Your task to perform on an android device: Is it going to rain tomorrow? Image 0: 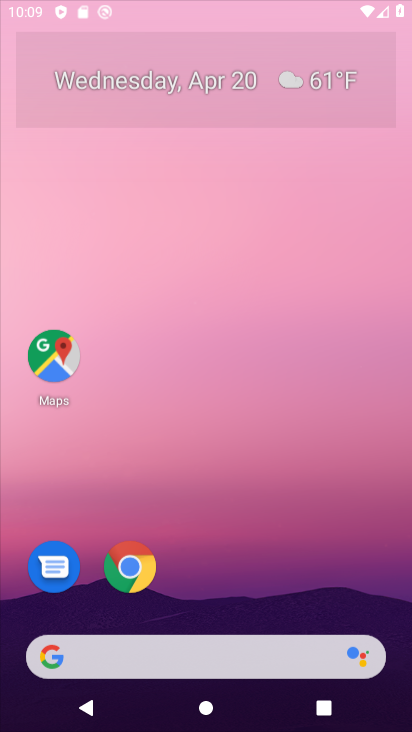
Step 0: click (341, 33)
Your task to perform on an android device: Is it going to rain tomorrow? Image 1: 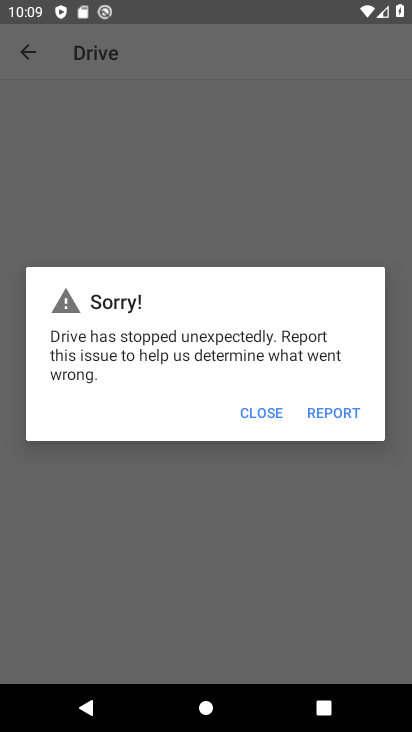
Step 1: click (245, 402)
Your task to perform on an android device: Is it going to rain tomorrow? Image 2: 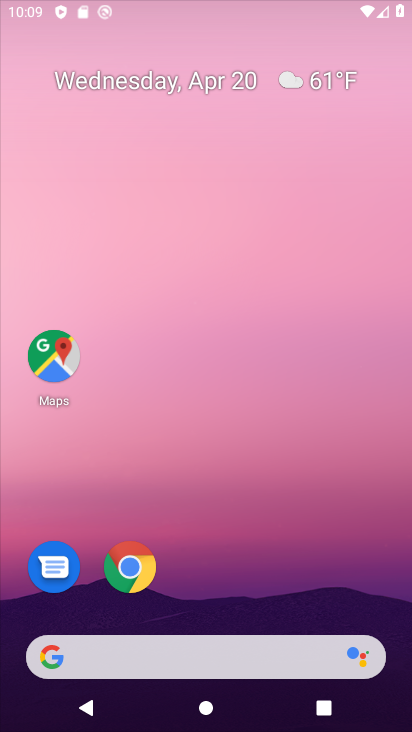
Step 2: press back button
Your task to perform on an android device: Is it going to rain tomorrow? Image 3: 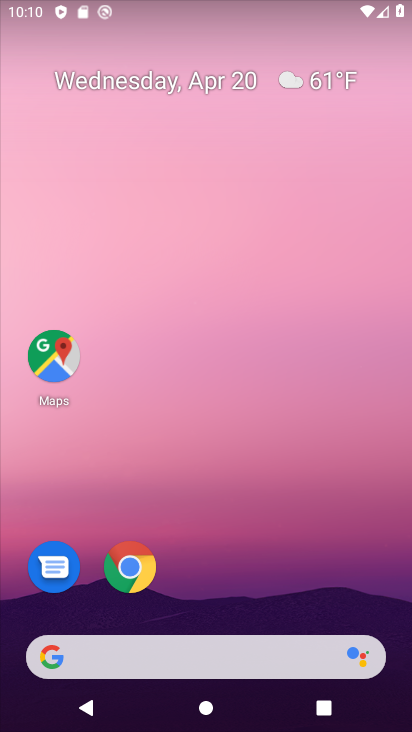
Step 3: click (194, 647)
Your task to perform on an android device: Is it going to rain tomorrow? Image 4: 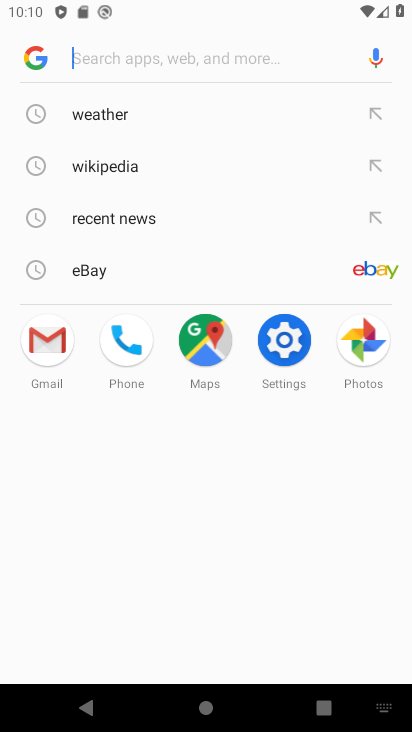
Step 4: press back button
Your task to perform on an android device: Is it going to rain tomorrow? Image 5: 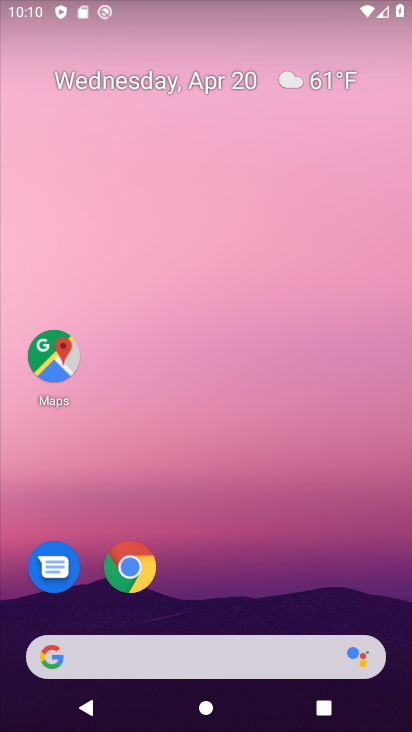
Step 5: click (317, 73)
Your task to perform on an android device: Is it going to rain tomorrow? Image 6: 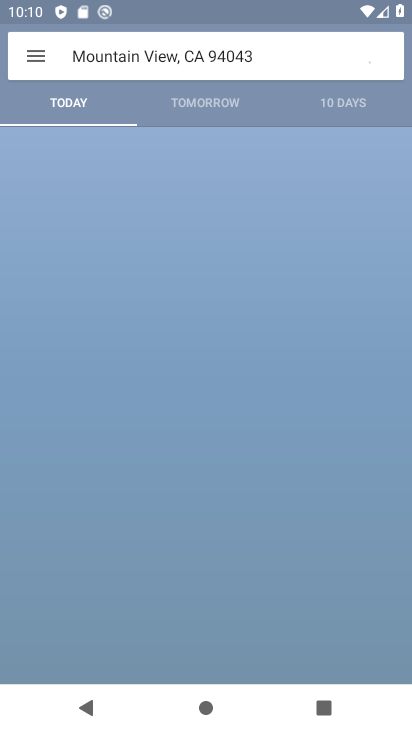
Step 6: click (182, 97)
Your task to perform on an android device: Is it going to rain tomorrow? Image 7: 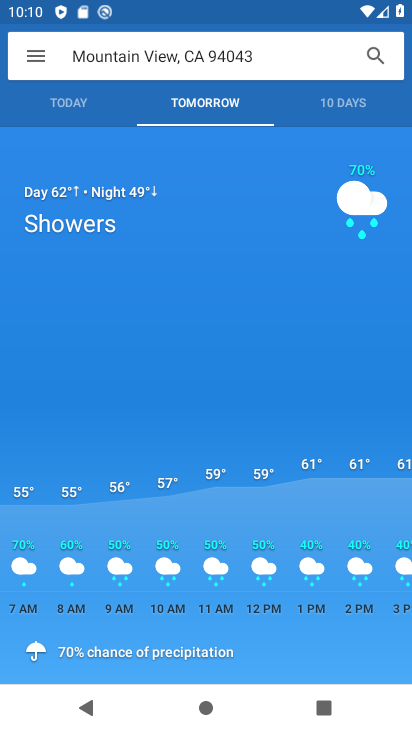
Step 7: task complete